Your task to perform on an android device: When is my next meeting? Image 0: 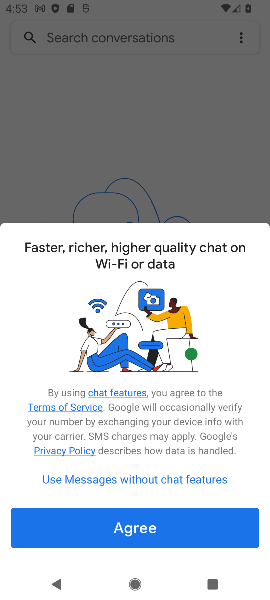
Step 0: press home button
Your task to perform on an android device: When is my next meeting? Image 1: 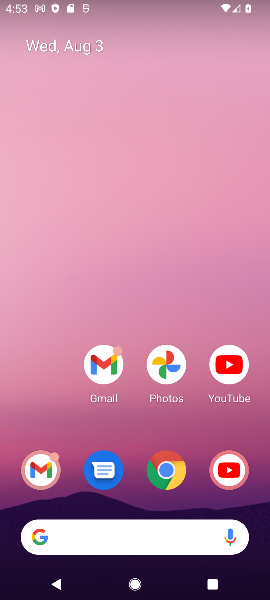
Step 1: drag from (197, 422) to (198, 5)
Your task to perform on an android device: When is my next meeting? Image 2: 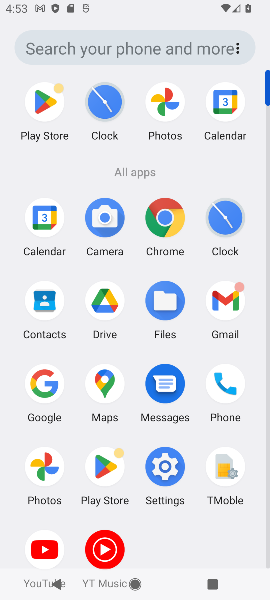
Step 2: click (54, 210)
Your task to perform on an android device: When is my next meeting? Image 3: 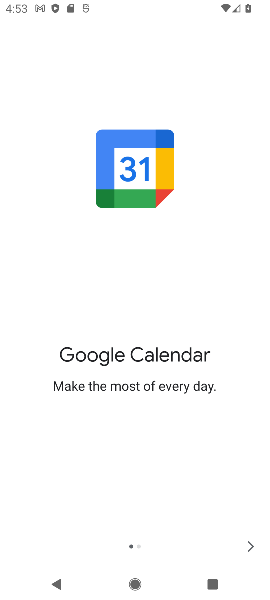
Step 3: click (245, 539)
Your task to perform on an android device: When is my next meeting? Image 4: 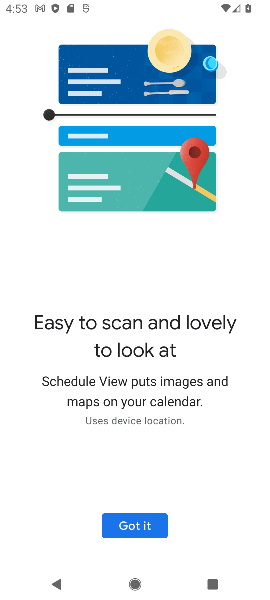
Step 4: click (142, 530)
Your task to perform on an android device: When is my next meeting? Image 5: 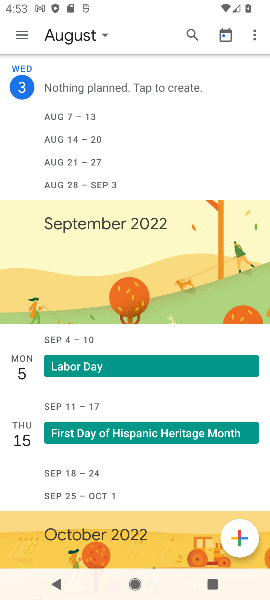
Step 5: click (19, 30)
Your task to perform on an android device: When is my next meeting? Image 6: 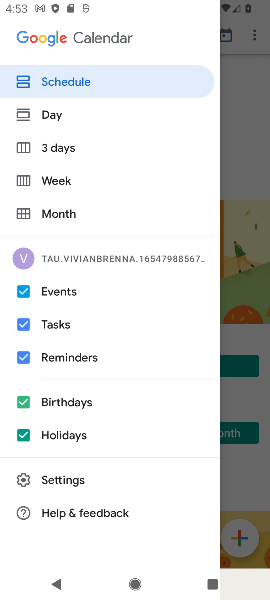
Step 6: click (59, 145)
Your task to perform on an android device: When is my next meeting? Image 7: 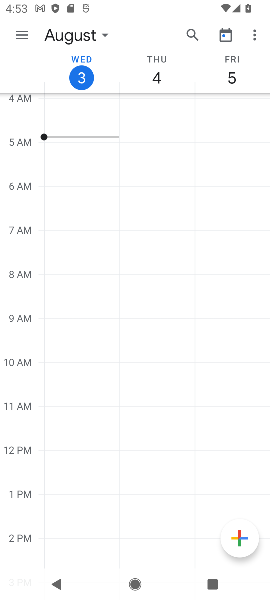
Step 7: task complete